Your task to perform on an android device: refresh tabs in the chrome app Image 0: 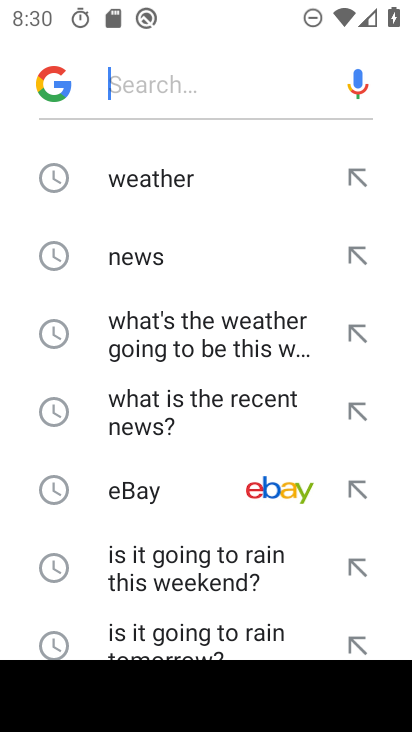
Step 0: press home button
Your task to perform on an android device: refresh tabs in the chrome app Image 1: 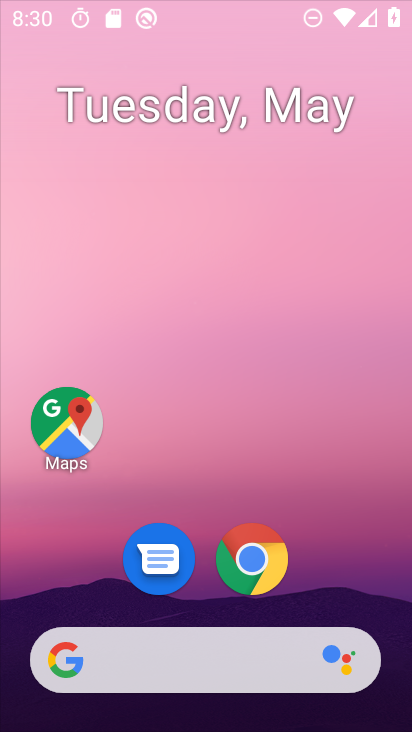
Step 1: drag from (399, 615) to (314, 87)
Your task to perform on an android device: refresh tabs in the chrome app Image 2: 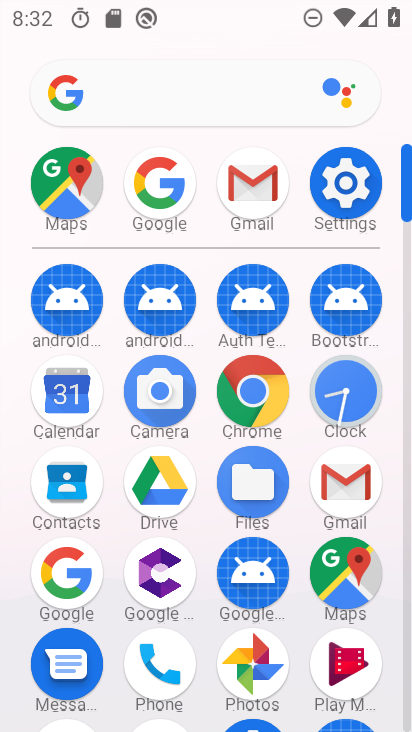
Step 2: click (244, 390)
Your task to perform on an android device: refresh tabs in the chrome app Image 3: 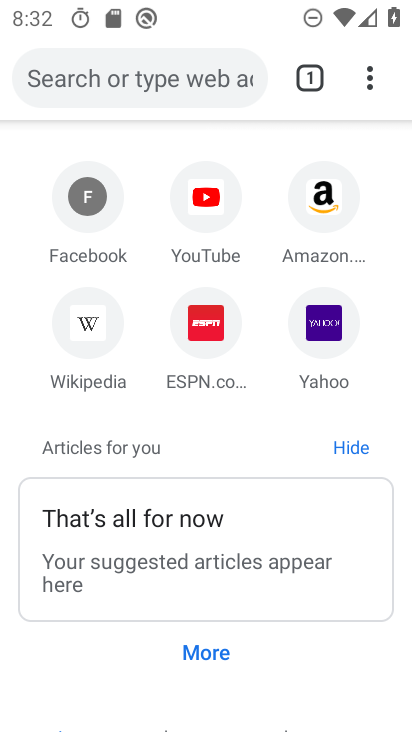
Step 3: click (369, 72)
Your task to perform on an android device: refresh tabs in the chrome app Image 4: 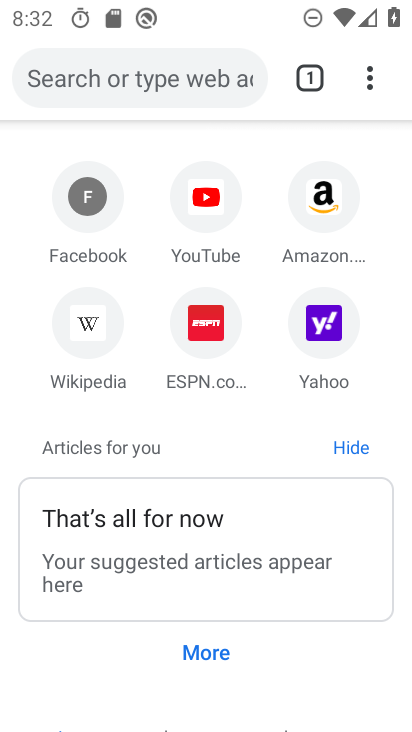
Step 4: click (369, 72)
Your task to perform on an android device: refresh tabs in the chrome app Image 5: 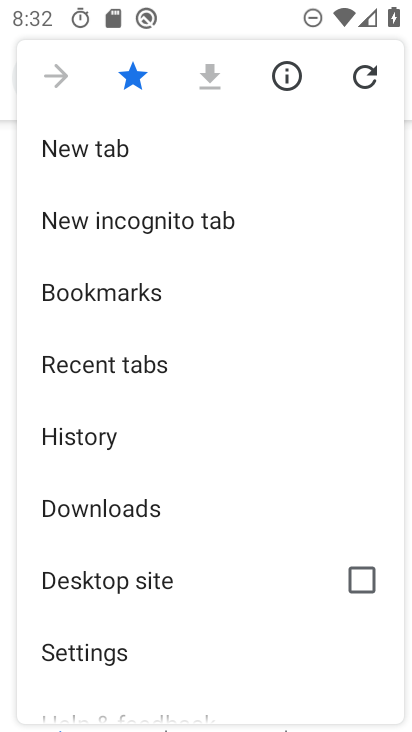
Step 5: click (369, 72)
Your task to perform on an android device: refresh tabs in the chrome app Image 6: 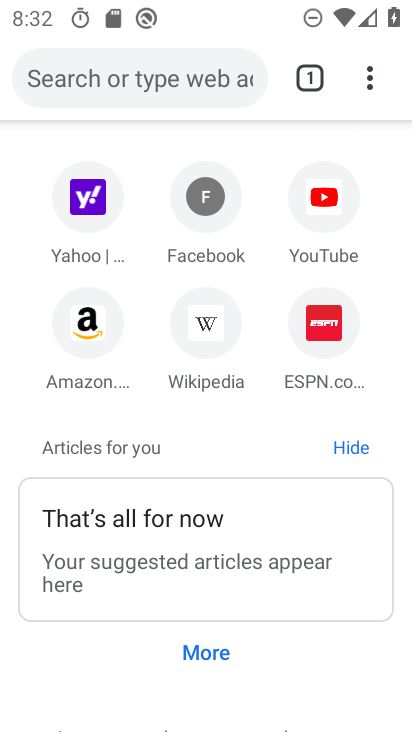
Step 6: task complete